Your task to perform on an android device: Open sound settings Image 0: 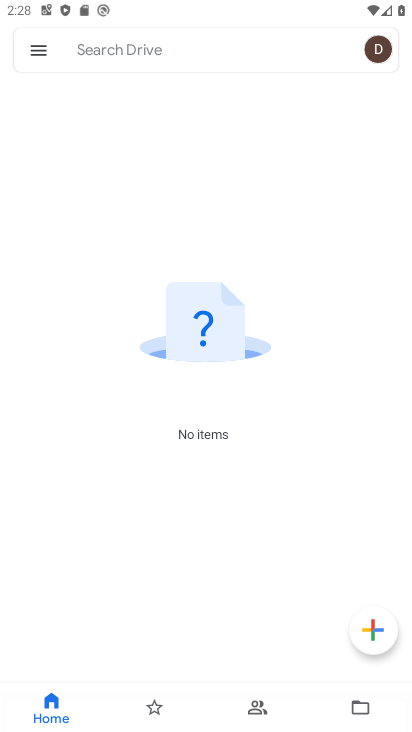
Step 0: click (123, 626)
Your task to perform on an android device: Open sound settings Image 1: 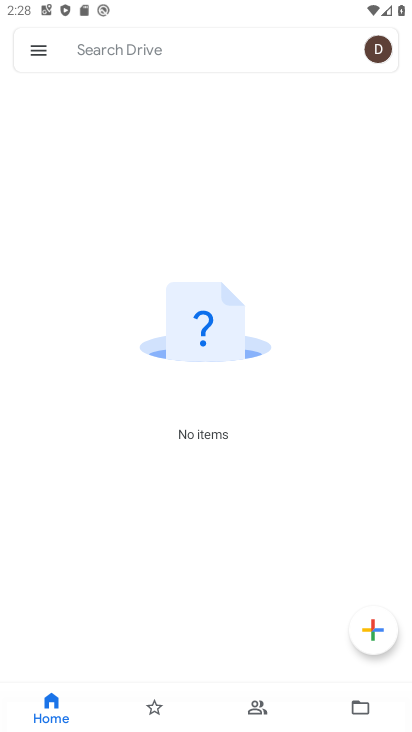
Step 1: press home button
Your task to perform on an android device: Open sound settings Image 2: 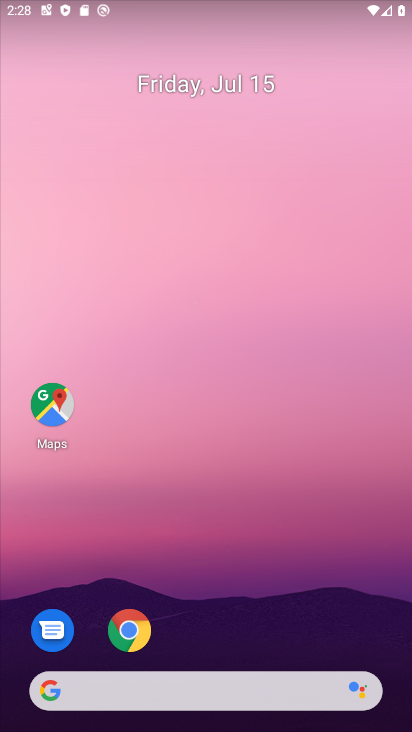
Step 2: drag from (212, 624) to (221, 11)
Your task to perform on an android device: Open sound settings Image 3: 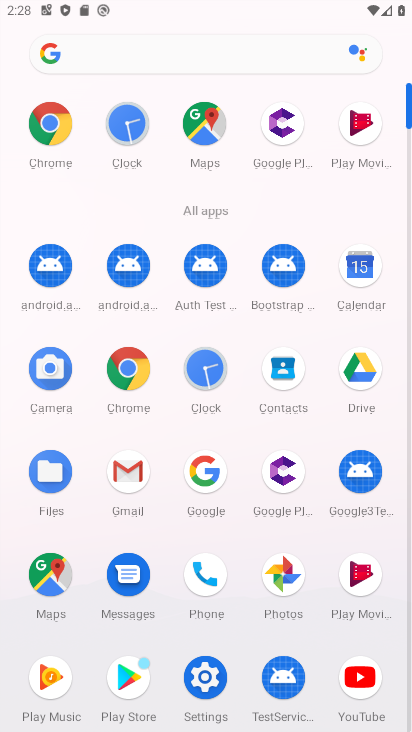
Step 3: click (208, 679)
Your task to perform on an android device: Open sound settings Image 4: 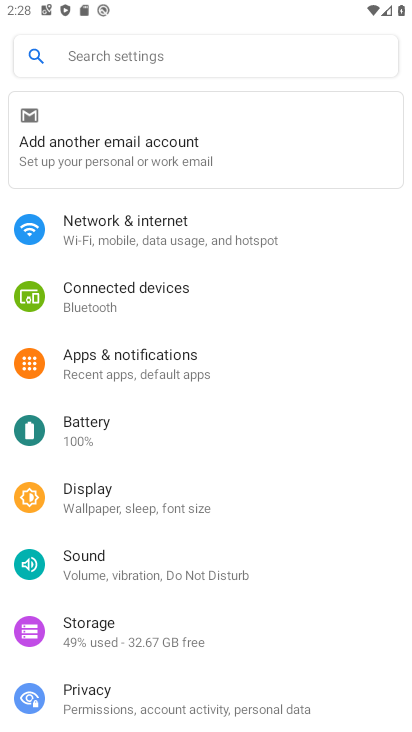
Step 4: click (107, 570)
Your task to perform on an android device: Open sound settings Image 5: 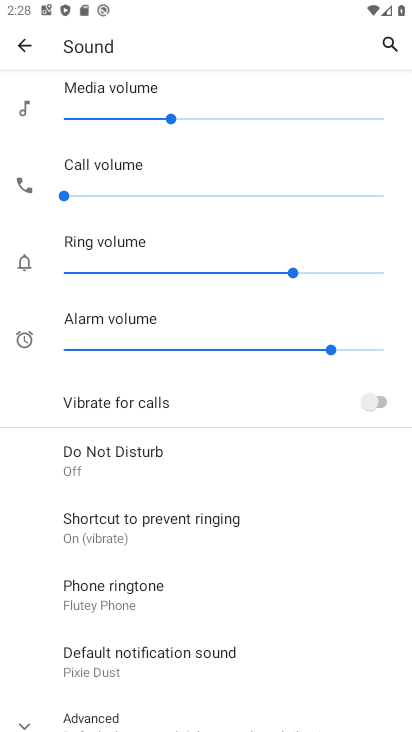
Step 5: task complete